Your task to perform on an android device: refresh tabs in the chrome app Image 0: 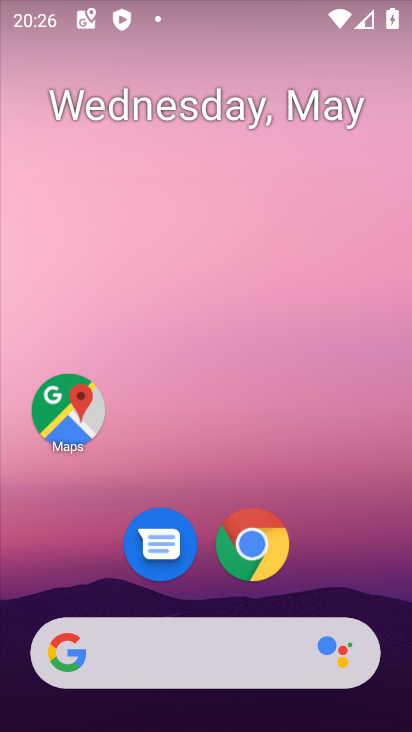
Step 0: click (259, 539)
Your task to perform on an android device: refresh tabs in the chrome app Image 1: 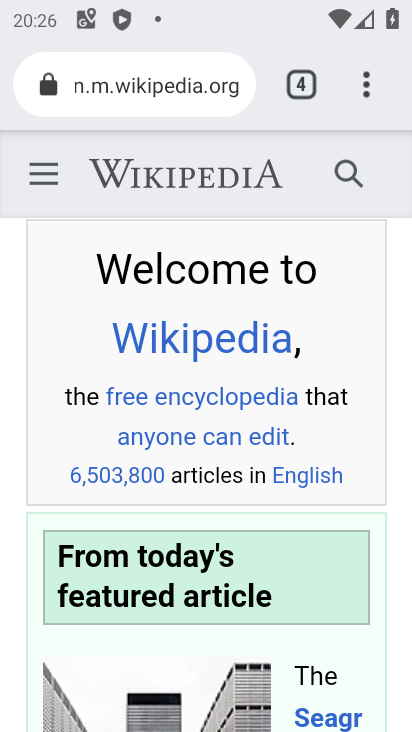
Step 1: click (374, 70)
Your task to perform on an android device: refresh tabs in the chrome app Image 2: 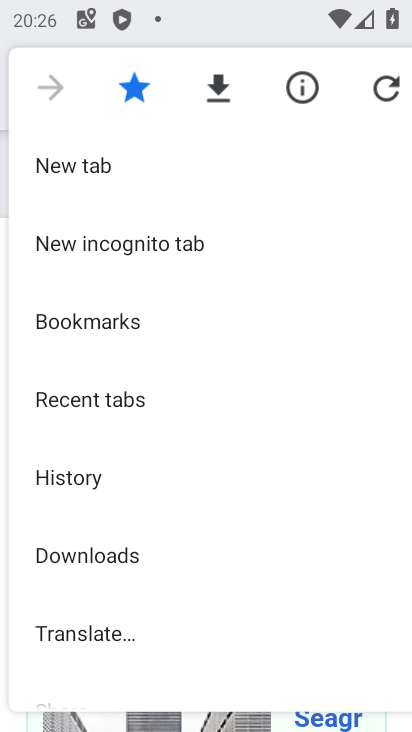
Step 2: click (380, 81)
Your task to perform on an android device: refresh tabs in the chrome app Image 3: 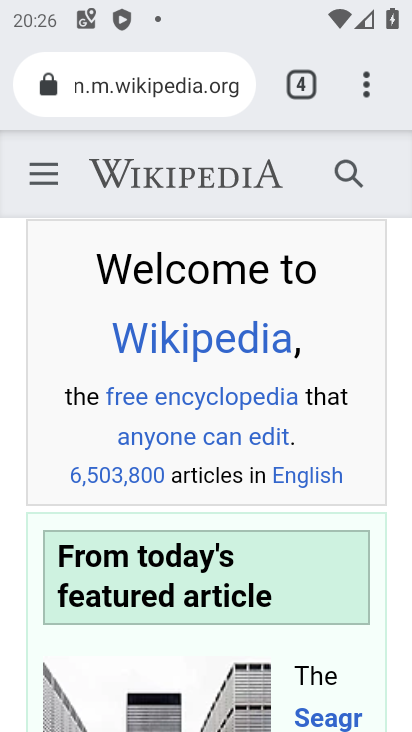
Step 3: task complete